Your task to perform on an android device: Go to Maps Image 0: 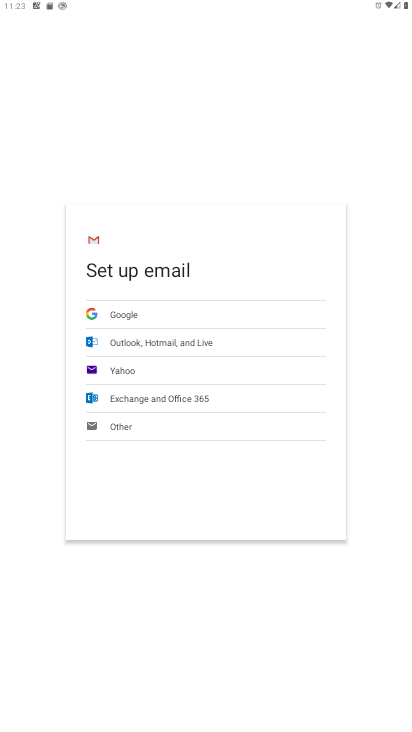
Step 0: press home button
Your task to perform on an android device: Go to Maps Image 1: 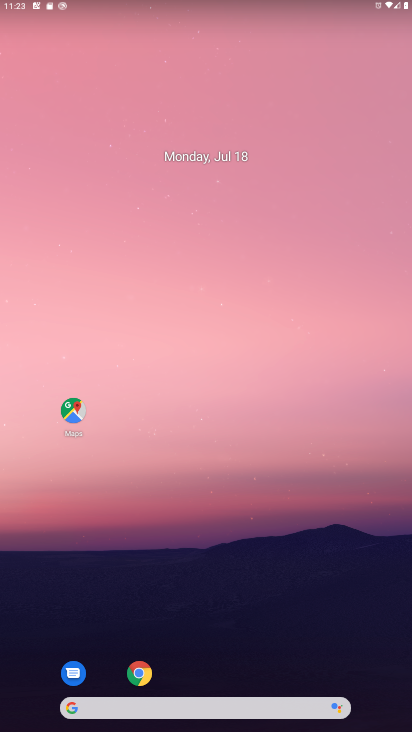
Step 1: click (65, 419)
Your task to perform on an android device: Go to Maps Image 2: 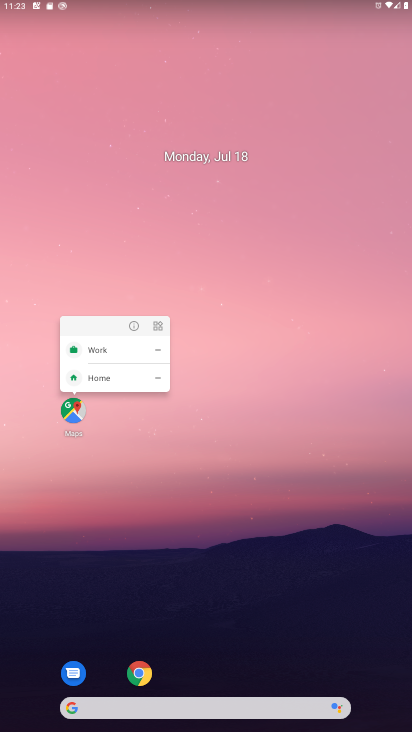
Step 2: click (65, 419)
Your task to perform on an android device: Go to Maps Image 3: 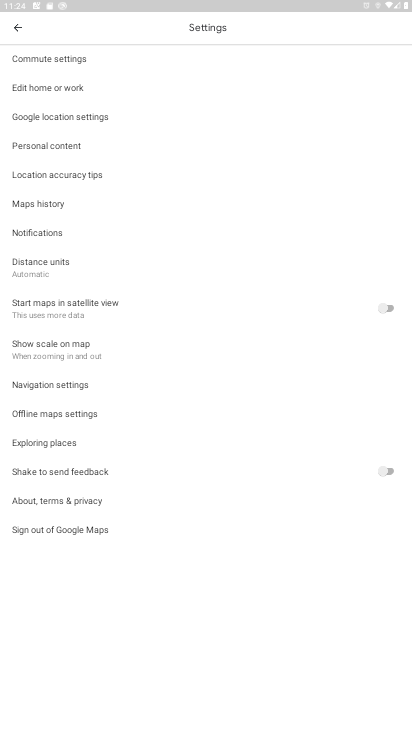
Step 3: click (15, 20)
Your task to perform on an android device: Go to Maps Image 4: 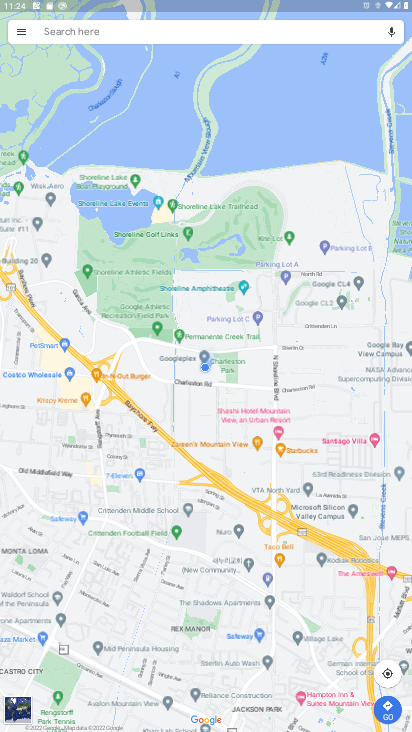
Step 4: task complete